Your task to perform on an android device: turn on improve location accuracy Image 0: 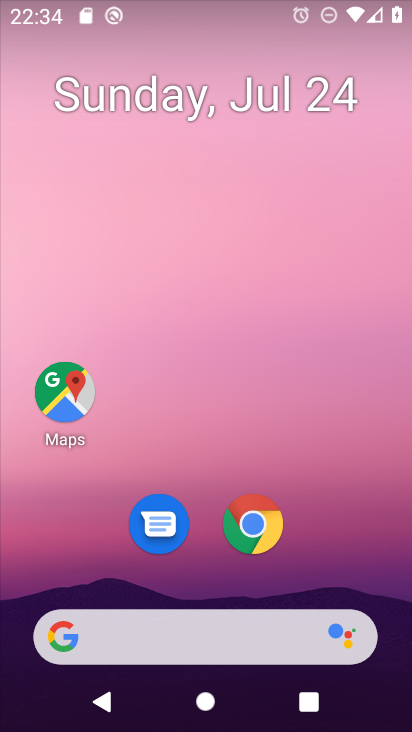
Step 0: press home button
Your task to perform on an android device: turn on improve location accuracy Image 1: 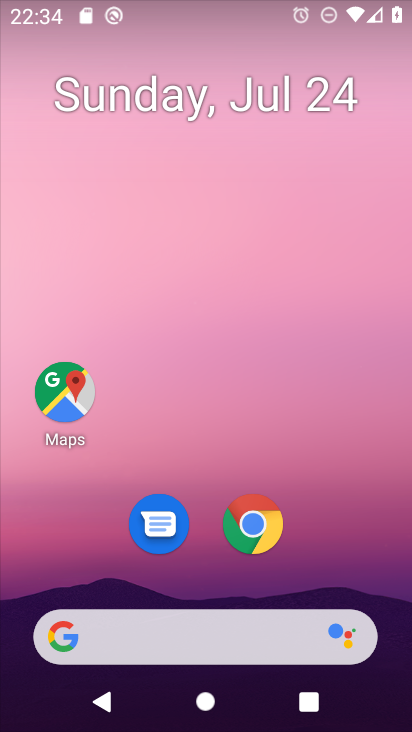
Step 1: drag from (209, 537) to (230, 43)
Your task to perform on an android device: turn on improve location accuracy Image 2: 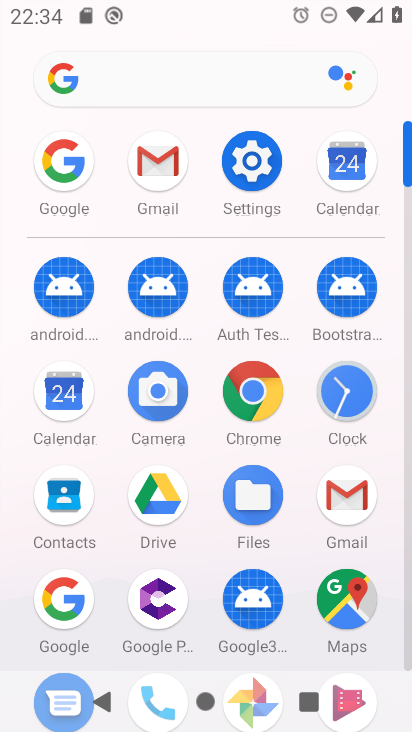
Step 2: click (257, 172)
Your task to perform on an android device: turn on improve location accuracy Image 3: 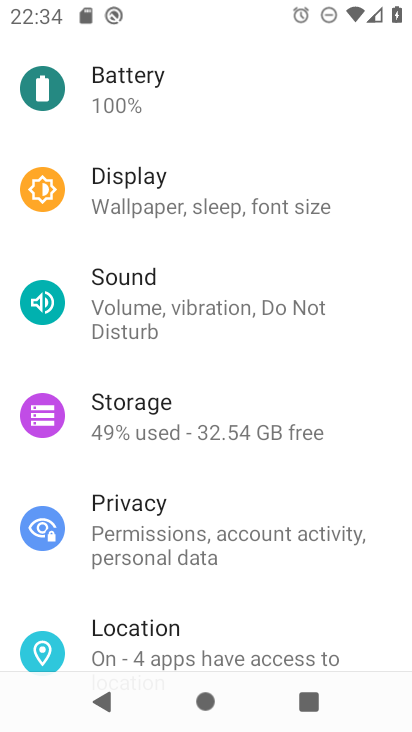
Step 3: drag from (332, 135) to (307, 538)
Your task to perform on an android device: turn on improve location accuracy Image 4: 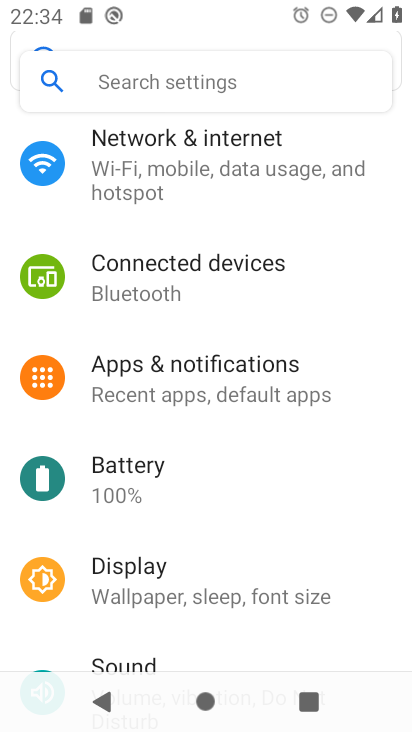
Step 4: drag from (243, 571) to (293, 62)
Your task to perform on an android device: turn on improve location accuracy Image 5: 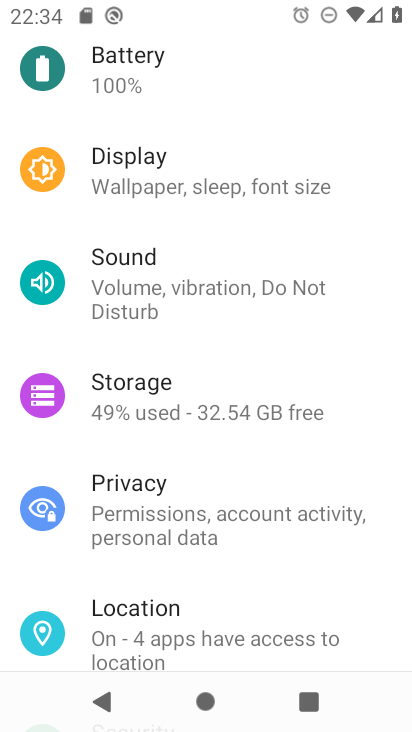
Step 5: click (179, 630)
Your task to perform on an android device: turn on improve location accuracy Image 6: 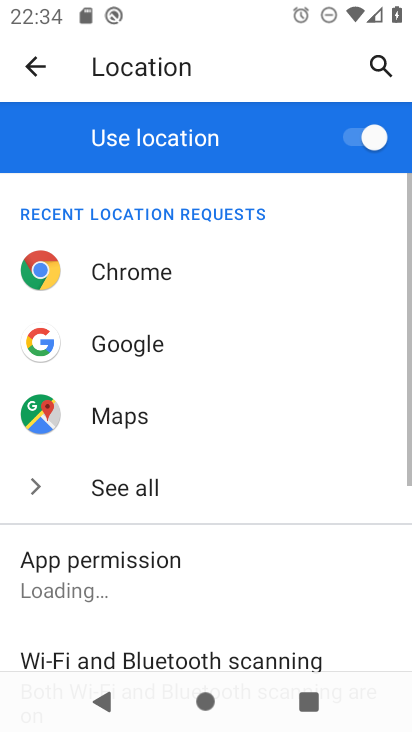
Step 6: drag from (228, 599) to (295, 88)
Your task to perform on an android device: turn on improve location accuracy Image 7: 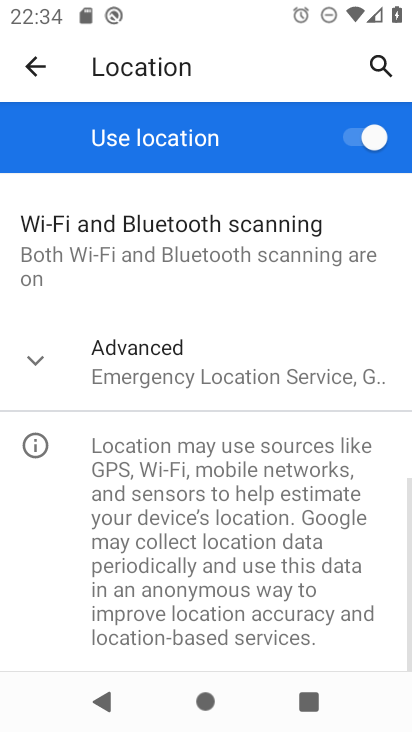
Step 7: click (142, 350)
Your task to perform on an android device: turn on improve location accuracy Image 8: 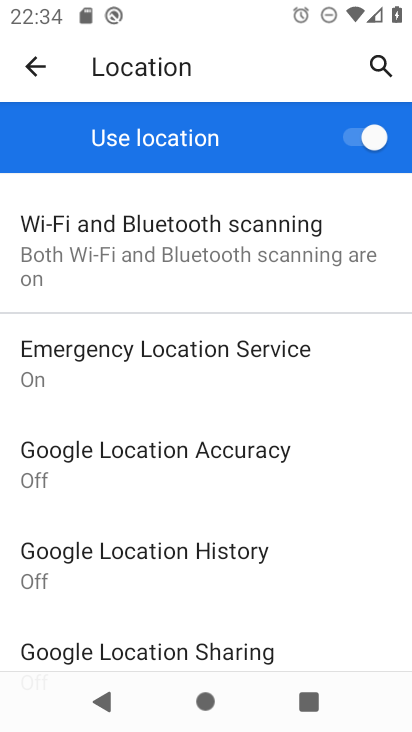
Step 8: click (179, 457)
Your task to perform on an android device: turn on improve location accuracy Image 9: 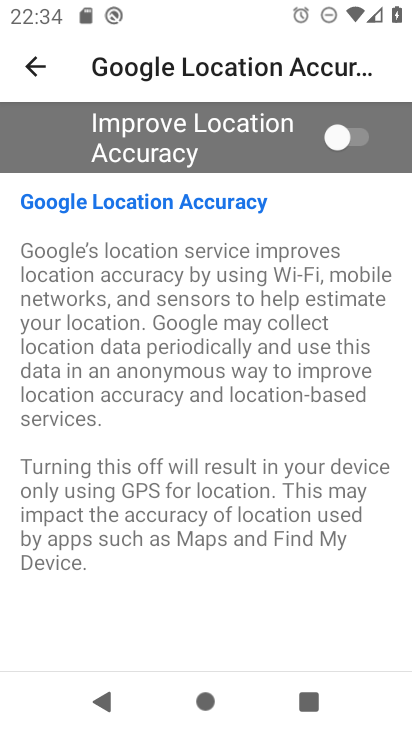
Step 9: click (357, 139)
Your task to perform on an android device: turn on improve location accuracy Image 10: 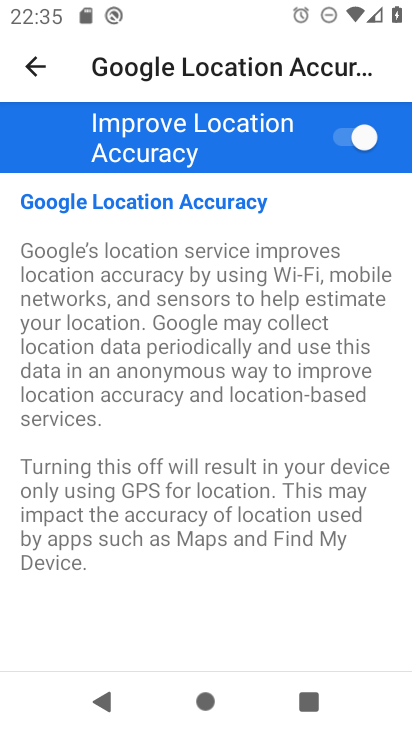
Step 10: task complete